Your task to perform on an android device: toggle notifications settings in the gmail app Image 0: 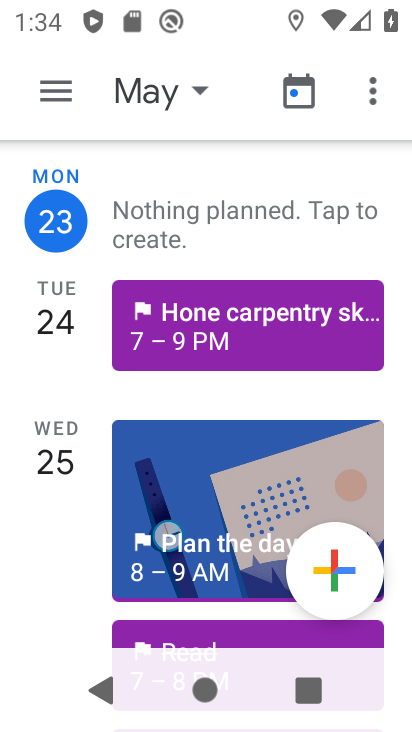
Step 0: press home button
Your task to perform on an android device: toggle notifications settings in the gmail app Image 1: 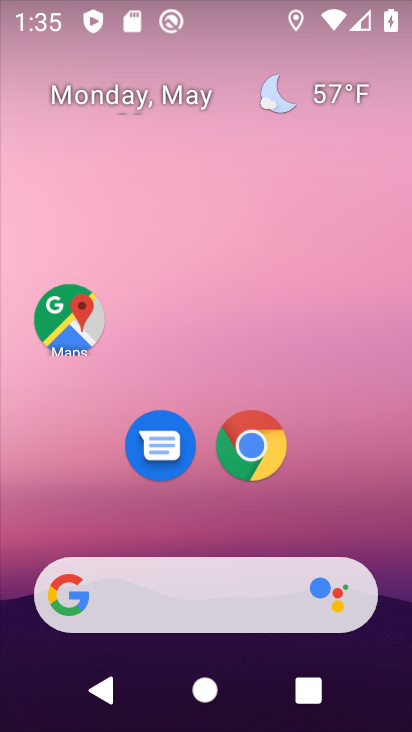
Step 1: drag from (210, 457) to (215, 49)
Your task to perform on an android device: toggle notifications settings in the gmail app Image 2: 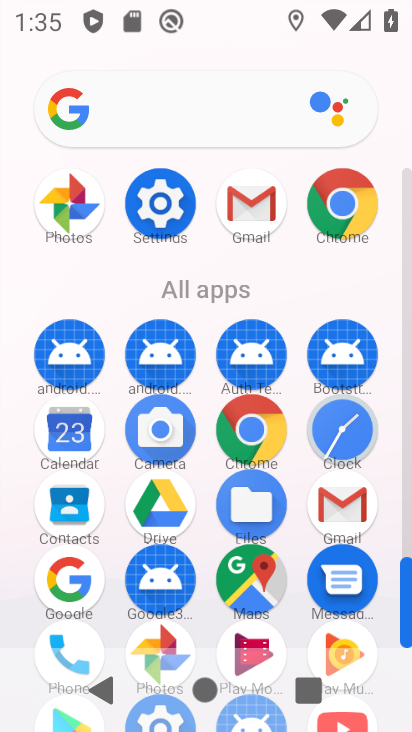
Step 2: click (257, 212)
Your task to perform on an android device: toggle notifications settings in the gmail app Image 3: 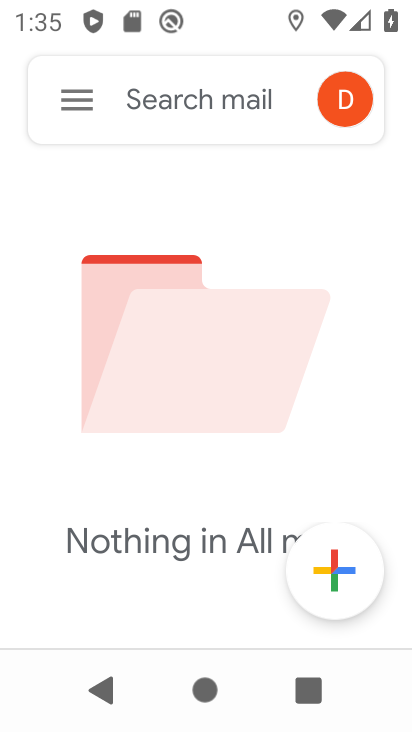
Step 3: click (82, 105)
Your task to perform on an android device: toggle notifications settings in the gmail app Image 4: 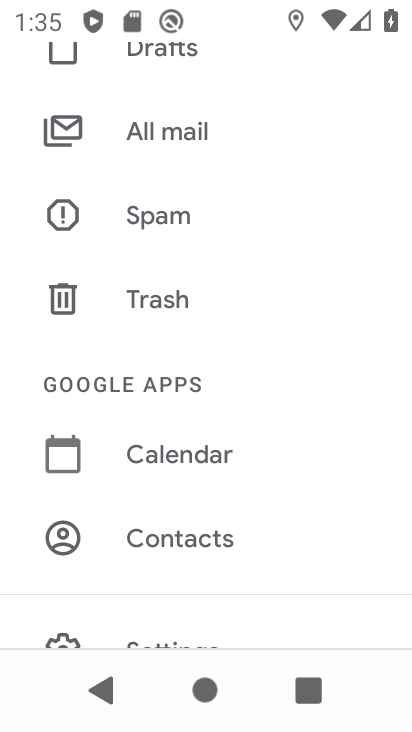
Step 4: drag from (246, 485) to (243, 128)
Your task to perform on an android device: toggle notifications settings in the gmail app Image 5: 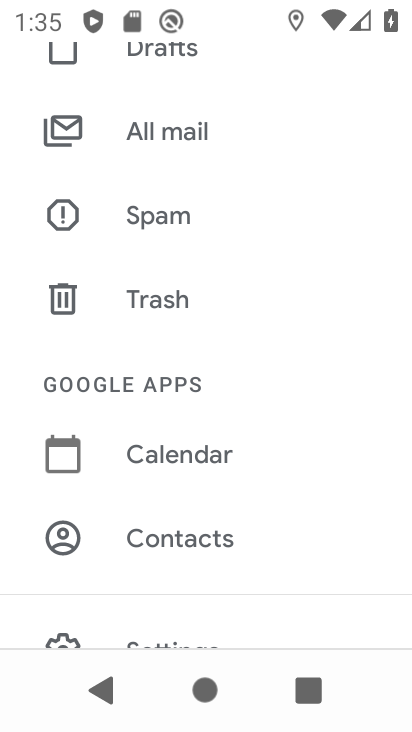
Step 5: drag from (191, 406) to (200, 118)
Your task to perform on an android device: toggle notifications settings in the gmail app Image 6: 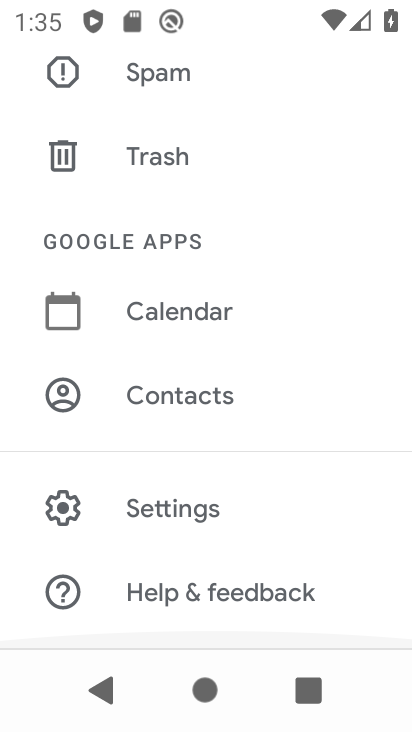
Step 6: click (167, 502)
Your task to perform on an android device: toggle notifications settings in the gmail app Image 7: 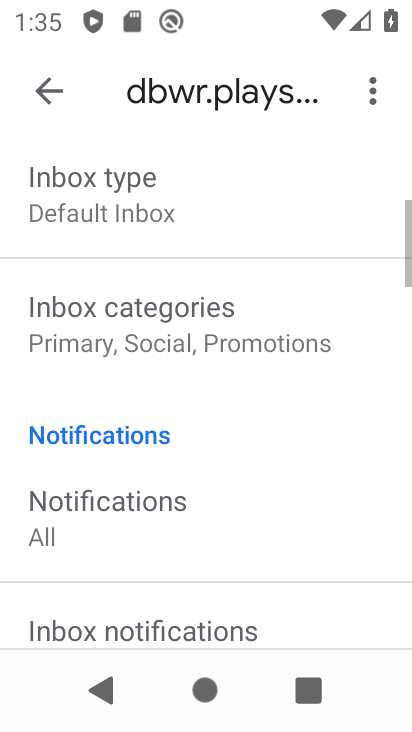
Step 7: click (128, 521)
Your task to perform on an android device: toggle notifications settings in the gmail app Image 8: 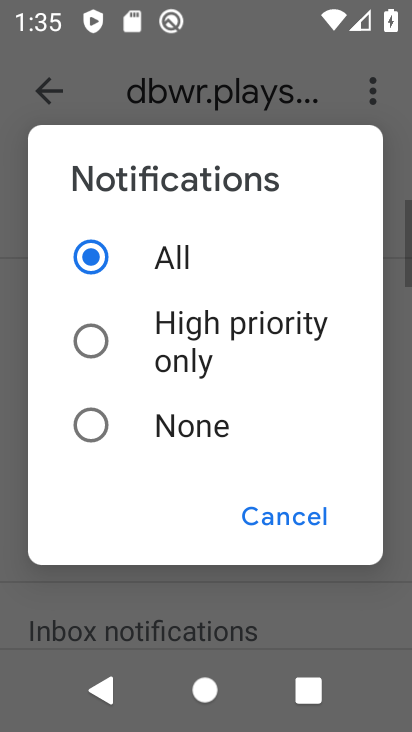
Step 8: click (79, 419)
Your task to perform on an android device: toggle notifications settings in the gmail app Image 9: 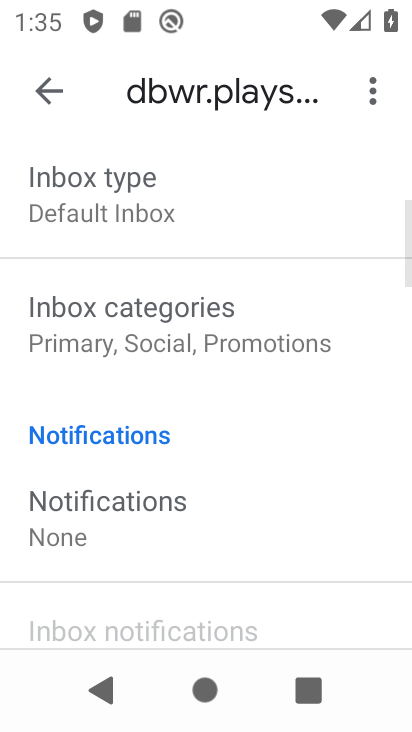
Step 9: task complete